Your task to perform on an android device: Go to ESPN.com Image 0: 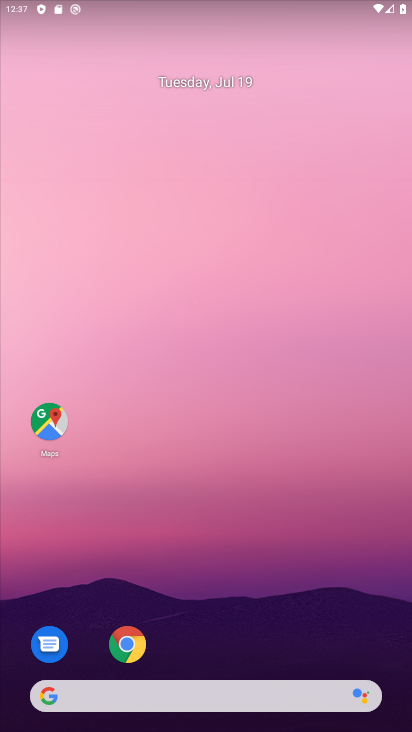
Step 0: click (131, 637)
Your task to perform on an android device: Go to ESPN.com Image 1: 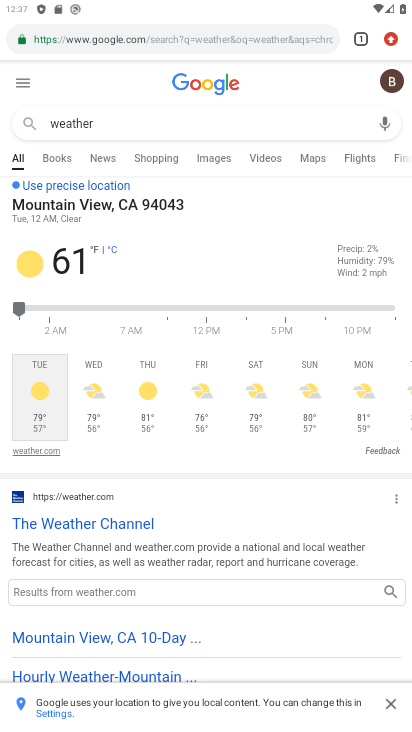
Step 1: click (116, 39)
Your task to perform on an android device: Go to ESPN.com Image 2: 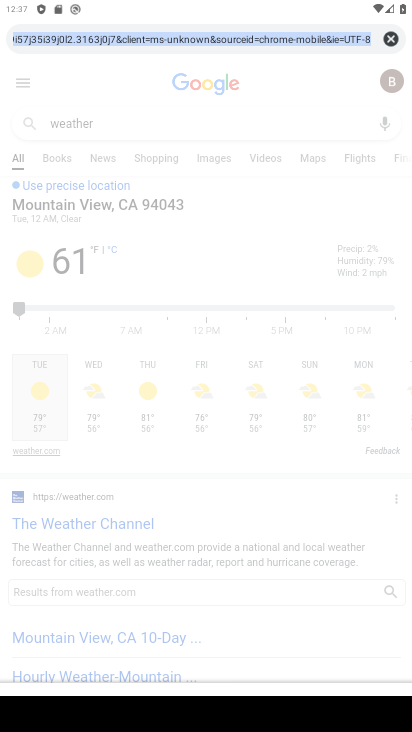
Step 2: click (391, 39)
Your task to perform on an android device: Go to ESPN.com Image 3: 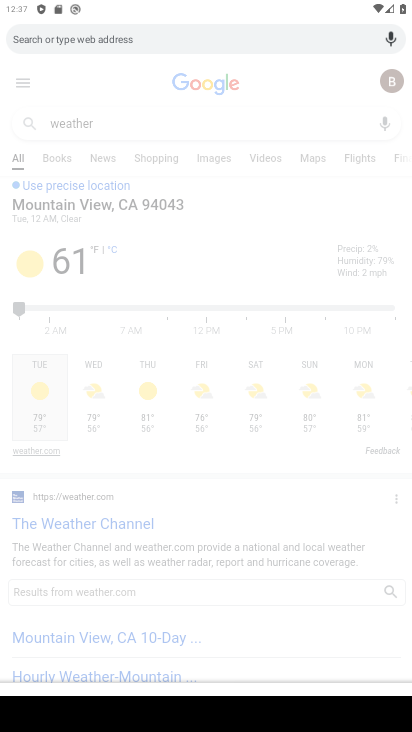
Step 3: type "espn.com"
Your task to perform on an android device: Go to ESPN.com Image 4: 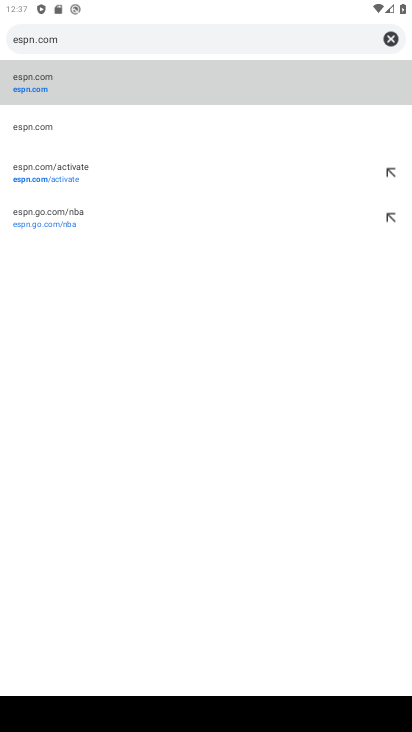
Step 4: click (47, 82)
Your task to perform on an android device: Go to ESPN.com Image 5: 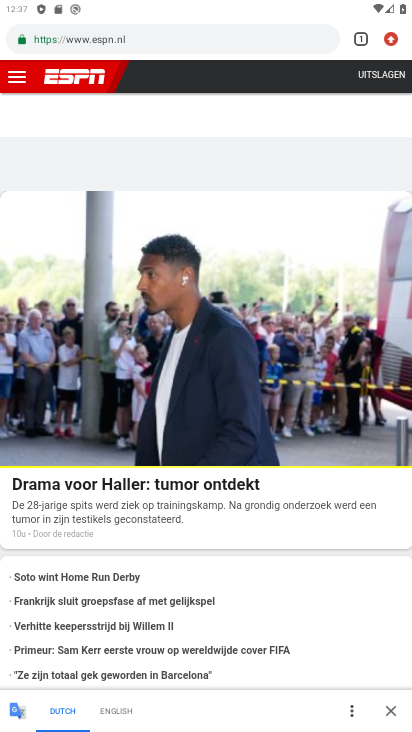
Step 5: task complete